Your task to perform on an android device: What is the recent news? Image 0: 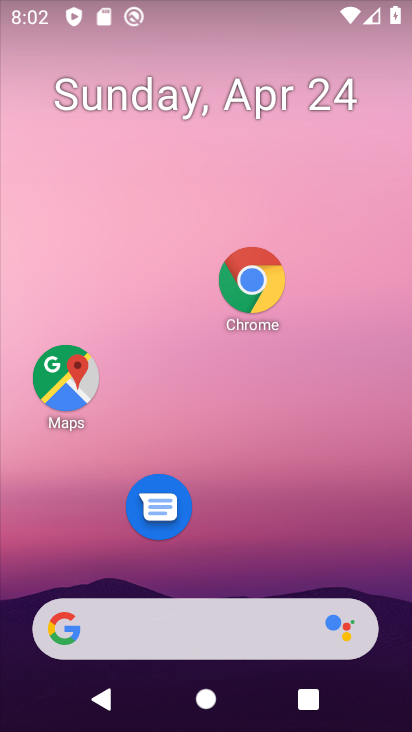
Step 0: press home button
Your task to perform on an android device: What is the recent news? Image 1: 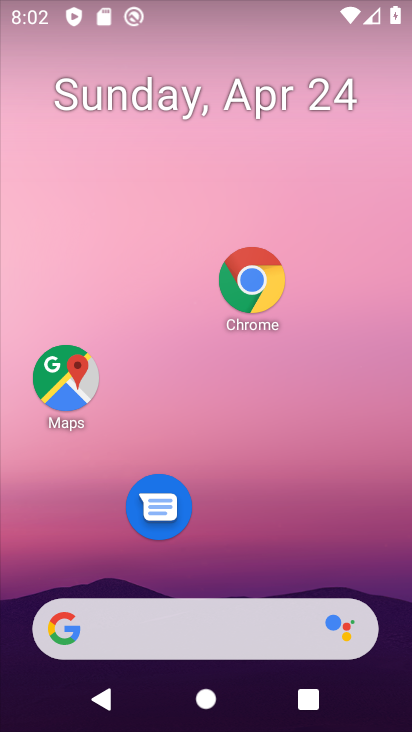
Step 1: click (28, 136)
Your task to perform on an android device: What is the recent news? Image 2: 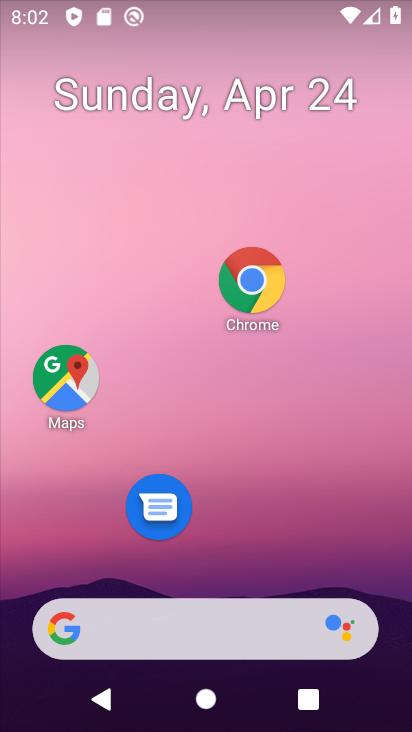
Step 2: drag from (274, 683) to (194, 133)
Your task to perform on an android device: What is the recent news? Image 3: 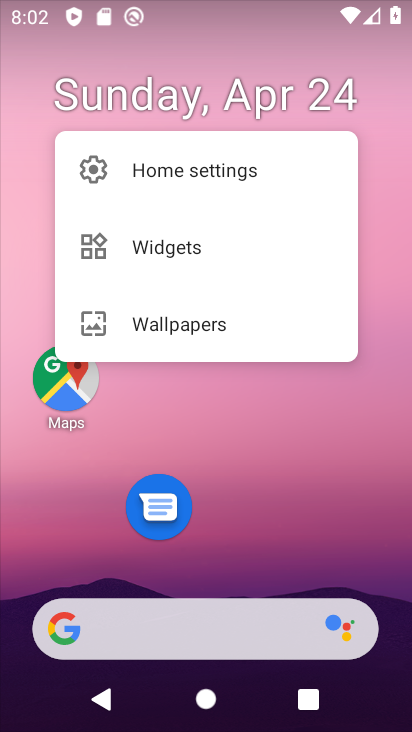
Step 3: click (386, 254)
Your task to perform on an android device: What is the recent news? Image 4: 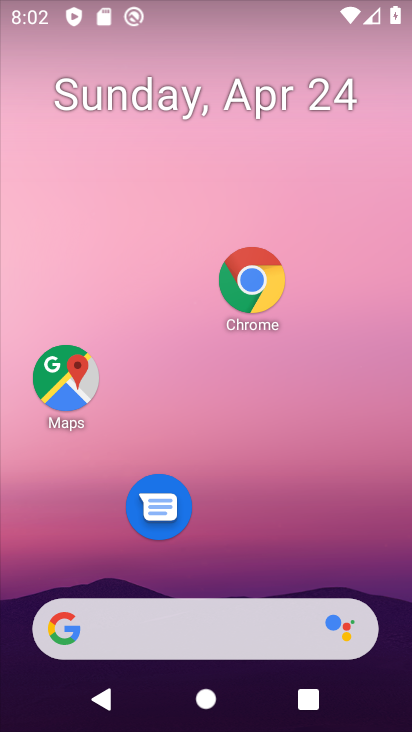
Step 4: drag from (244, 632) to (127, 0)
Your task to perform on an android device: What is the recent news? Image 5: 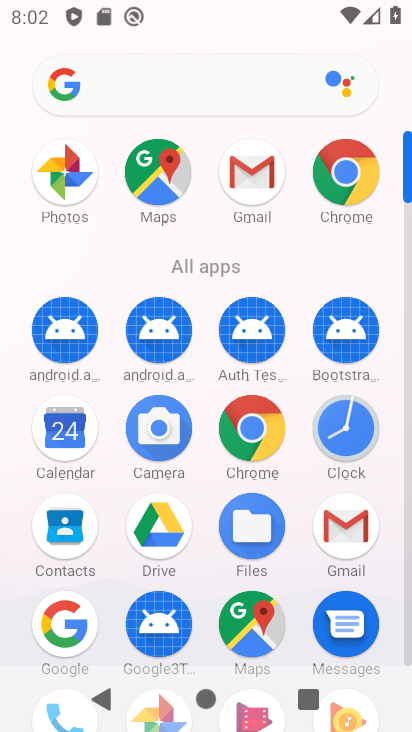
Step 5: press home button
Your task to perform on an android device: What is the recent news? Image 6: 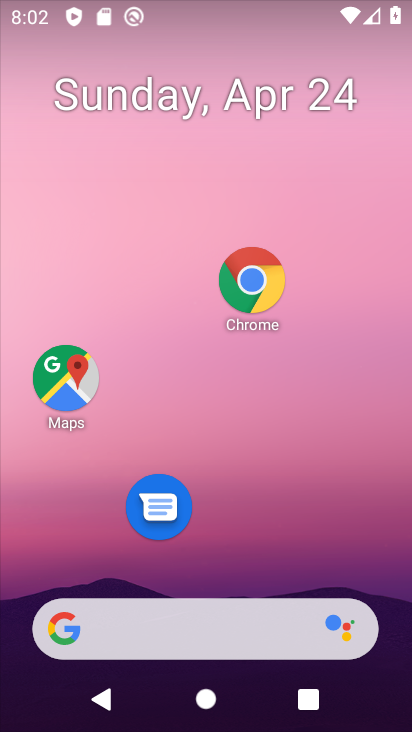
Step 6: drag from (1, 192) to (380, 288)
Your task to perform on an android device: What is the recent news? Image 7: 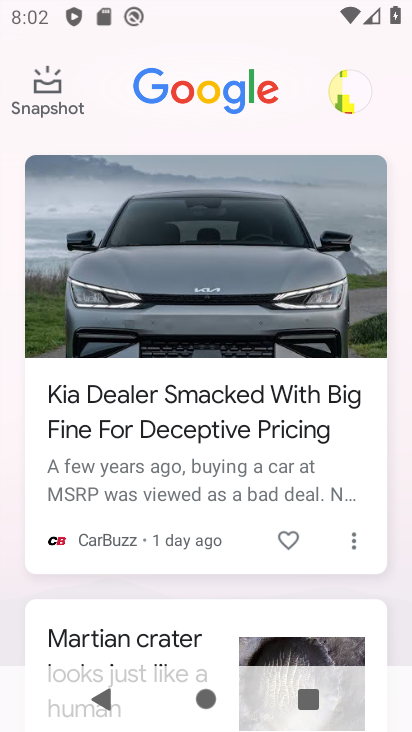
Step 7: drag from (150, 535) to (102, 158)
Your task to perform on an android device: What is the recent news? Image 8: 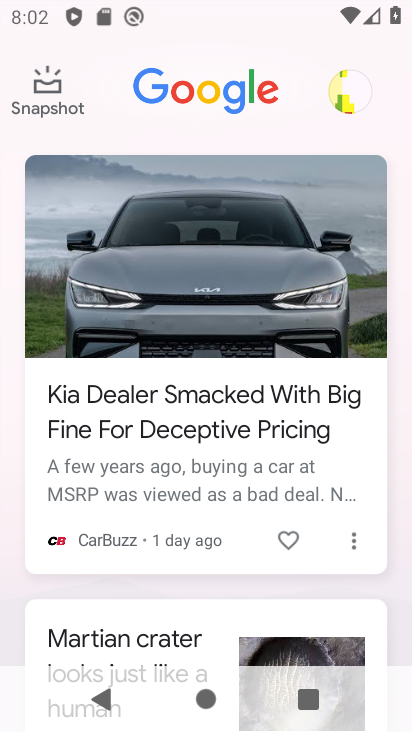
Step 8: drag from (214, 501) to (211, 212)
Your task to perform on an android device: What is the recent news? Image 9: 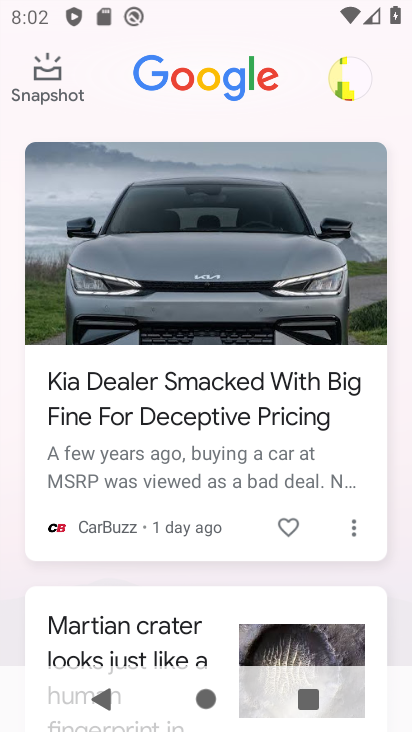
Step 9: drag from (156, 519) to (148, 70)
Your task to perform on an android device: What is the recent news? Image 10: 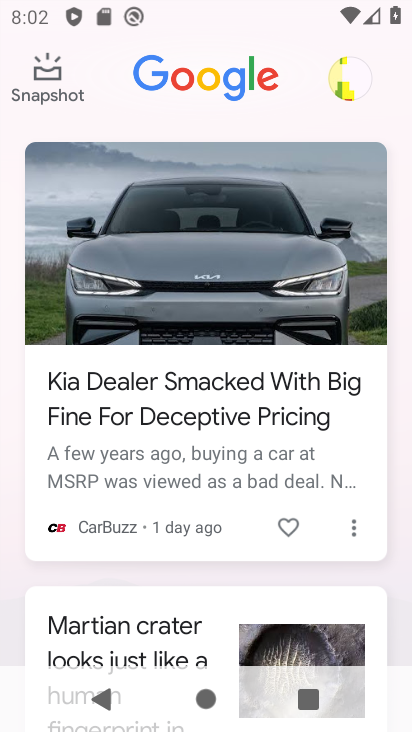
Step 10: drag from (155, 320) to (156, 155)
Your task to perform on an android device: What is the recent news? Image 11: 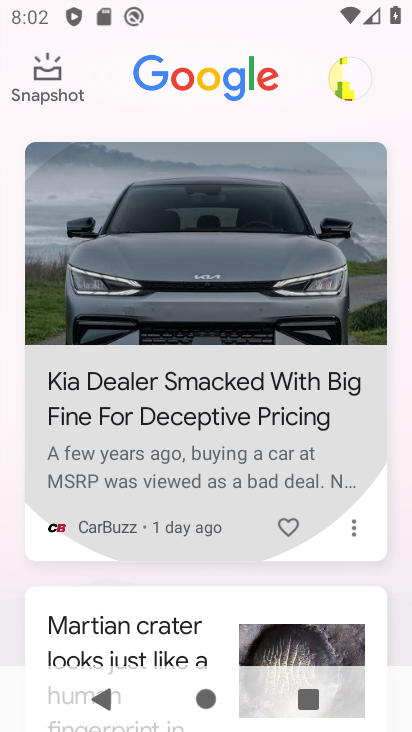
Step 11: drag from (147, 514) to (231, 198)
Your task to perform on an android device: What is the recent news? Image 12: 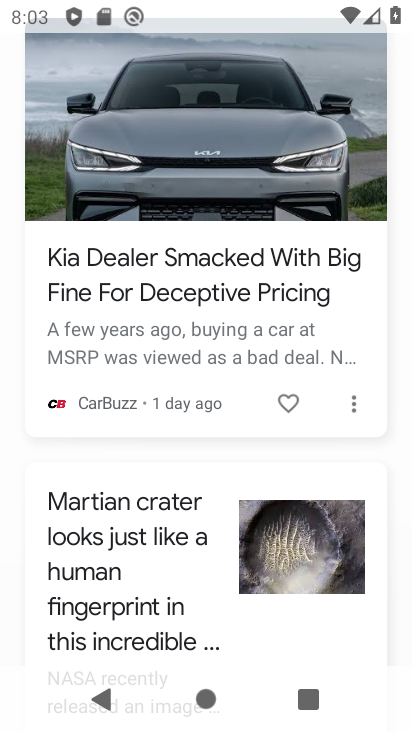
Step 12: drag from (223, 552) to (149, 233)
Your task to perform on an android device: What is the recent news? Image 13: 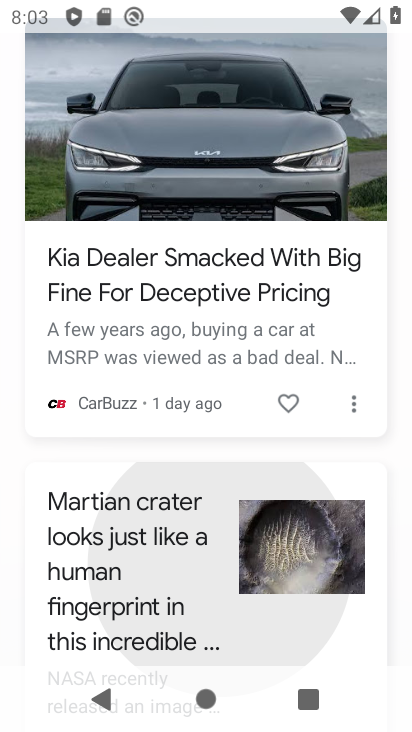
Step 13: drag from (213, 509) to (168, 315)
Your task to perform on an android device: What is the recent news? Image 14: 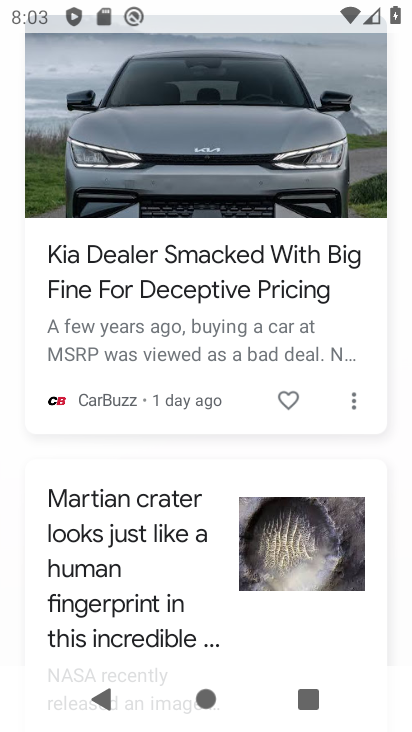
Step 14: drag from (229, 537) to (251, 207)
Your task to perform on an android device: What is the recent news? Image 15: 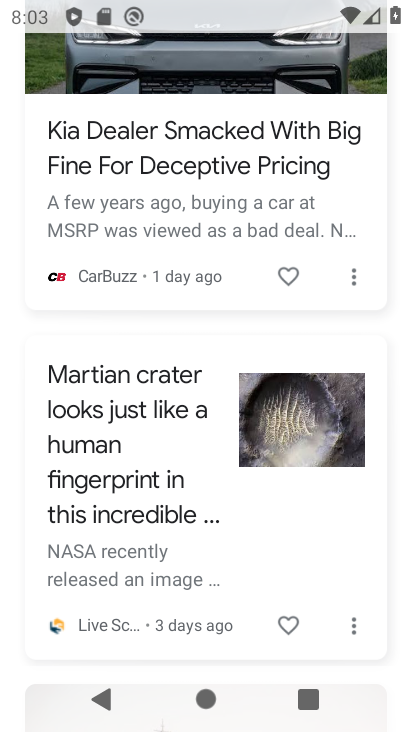
Step 15: press home button
Your task to perform on an android device: What is the recent news? Image 16: 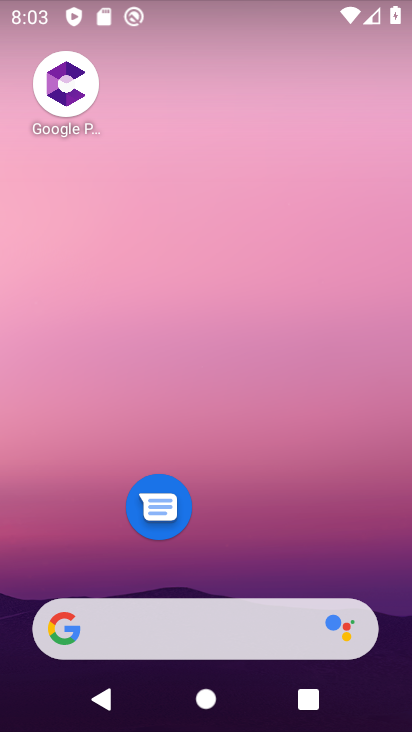
Step 16: drag from (243, 675) to (180, 43)
Your task to perform on an android device: What is the recent news? Image 17: 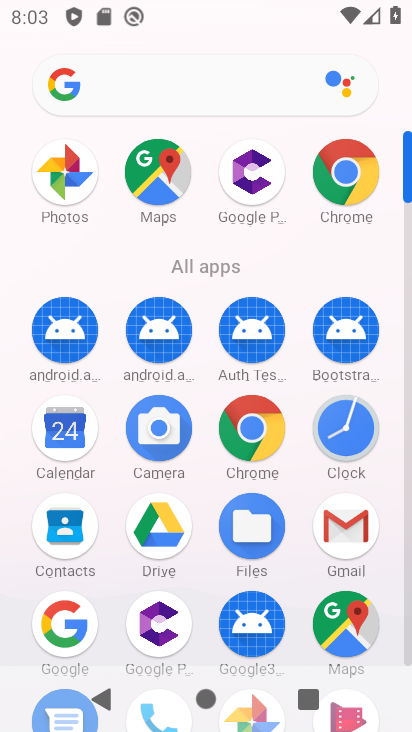
Step 17: press home button
Your task to perform on an android device: What is the recent news? Image 18: 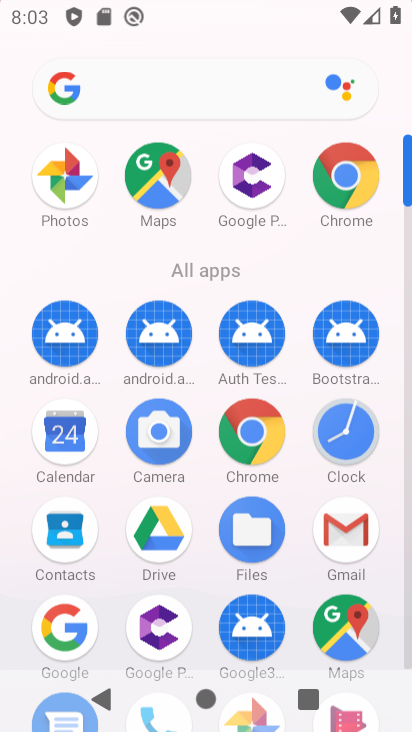
Step 18: press home button
Your task to perform on an android device: What is the recent news? Image 19: 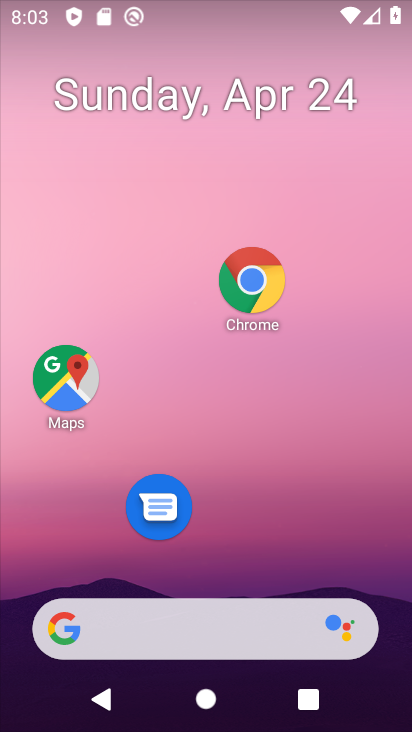
Step 19: drag from (0, 242) to (342, 221)
Your task to perform on an android device: What is the recent news? Image 20: 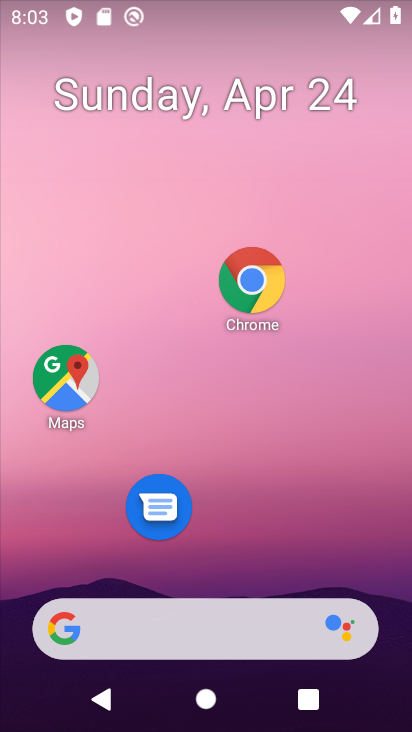
Step 20: drag from (7, 167) to (288, 239)
Your task to perform on an android device: What is the recent news? Image 21: 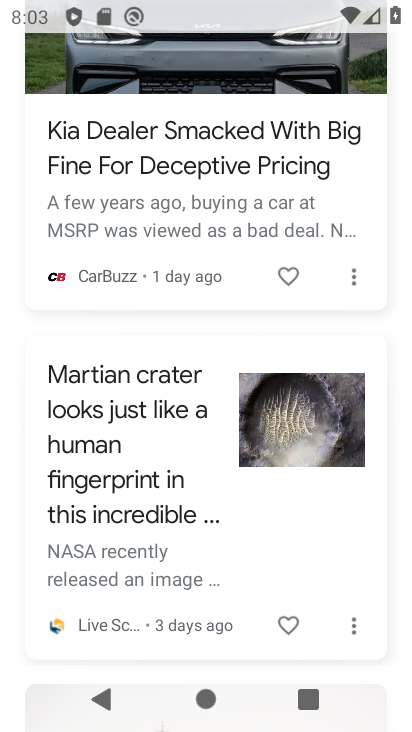
Step 21: drag from (137, 254) to (140, 1)
Your task to perform on an android device: What is the recent news? Image 22: 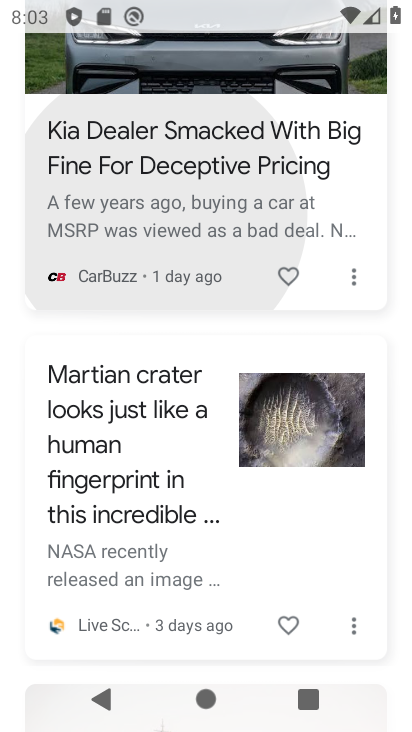
Step 22: click (170, 5)
Your task to perform on an android device: What is the recent news? Image 23: 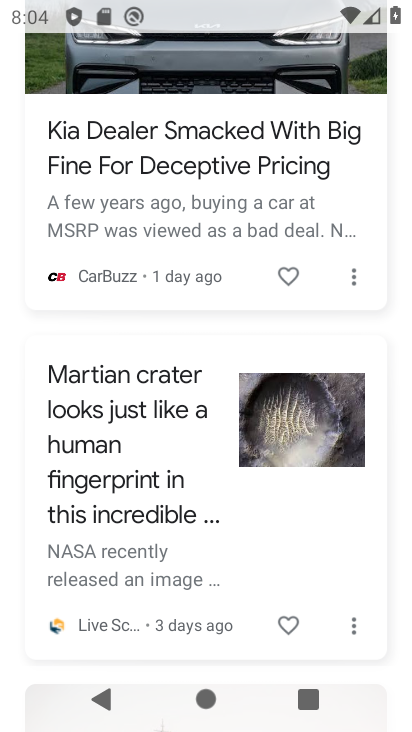
Step 23: task complete